Your task to perform on an android device: toggle translation in the chrome app Image 0: 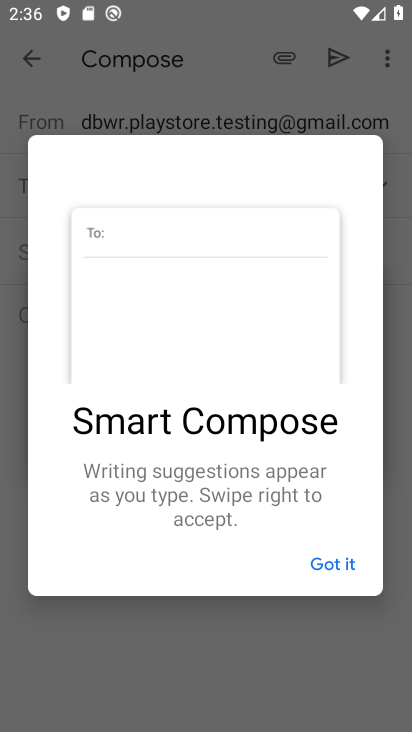
Step 0: press home button
Your task to perform on an android device: toggle translation in the chrome app Image 1: 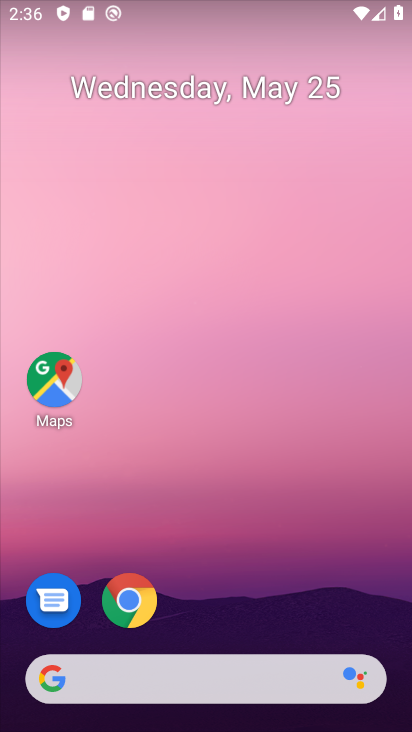
Step 1: click (130, 599)
Your task to perform on an android device: toggle translation in the chrome app Image 2: 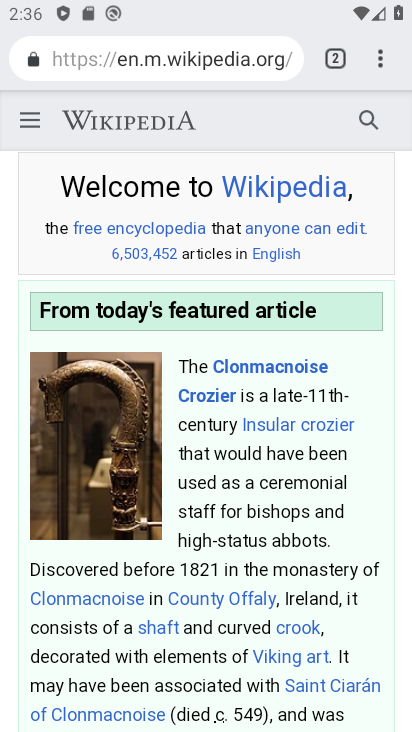
Step 2: click (376, 58)
Your task to perform on an android device: toggle translation in the chrome app Image 3: 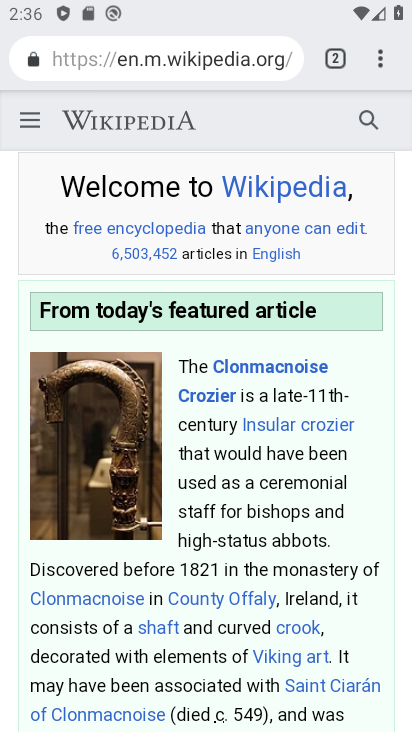
Step 3: click (375, 51)
Your task to perform on an android device: toggle translation in the chrome app Image 4: 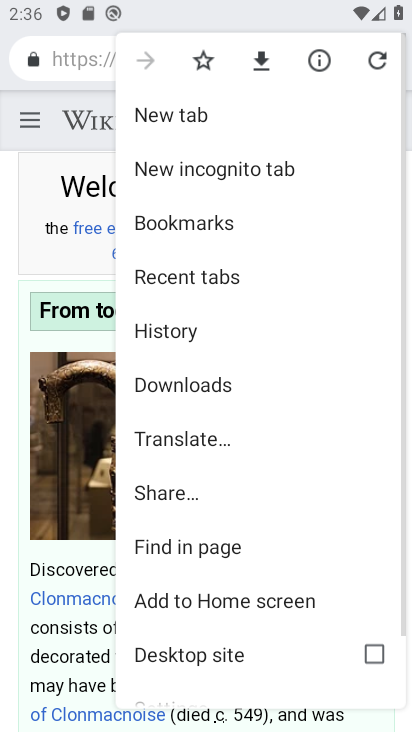
Step 4: drag from (133, 680) to (271, 131)
Your task to perform on an android device: toggle translation in the chrome app Image 5: 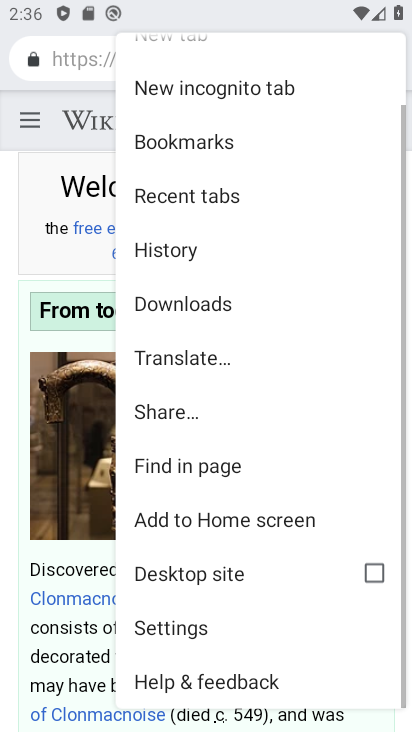
Step 5: click (179, 622)
Your task to perform on an android device: toggle translation in the chrome app Image 6: 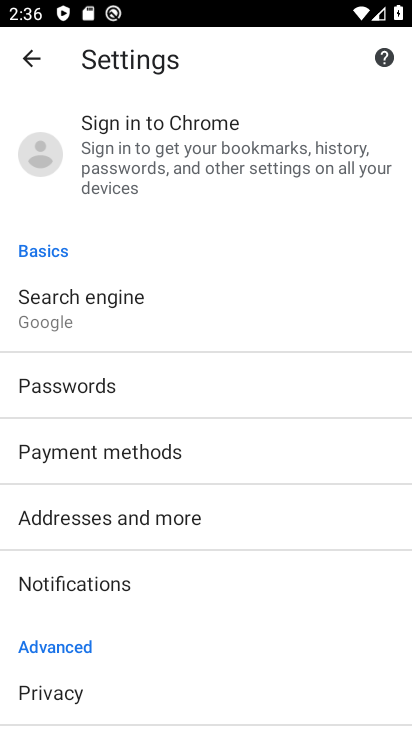
Step 6: drag from (6, 657) to (250, 170)
Your task to perform on an android device: toggle translation in the chrome app Image 7: 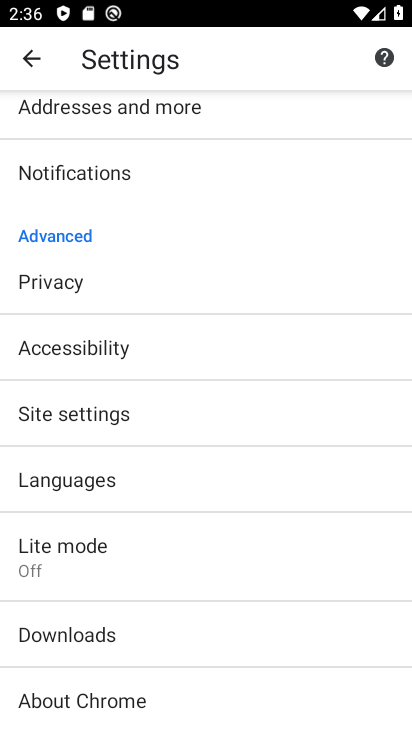
Step 7: click (128, 486)
Your task to perform on an android device: toggle translation in the chrome app Image 8: 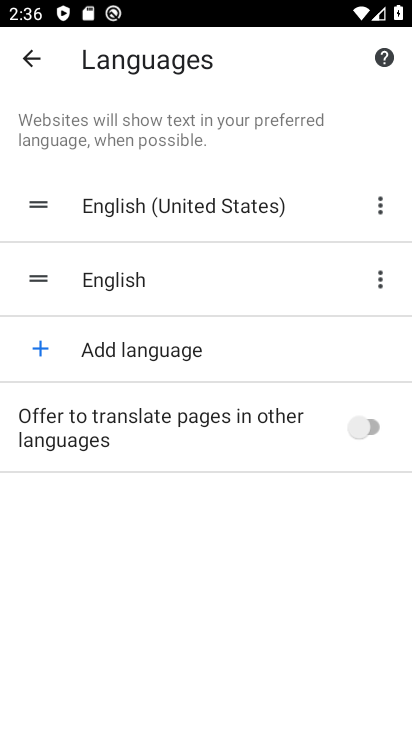
Step 8: click (370, 436)
Your task to perform on an android device: toggle translation in the chrome app Image 9: 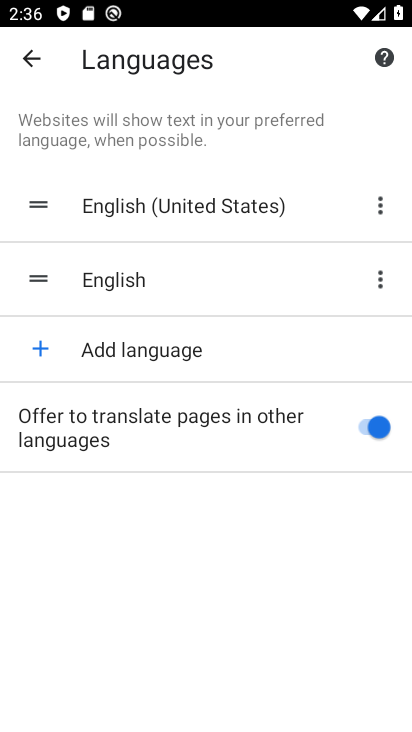
Step 9: task complete